Your task to perform on an android device: Go to network settings Image 0: 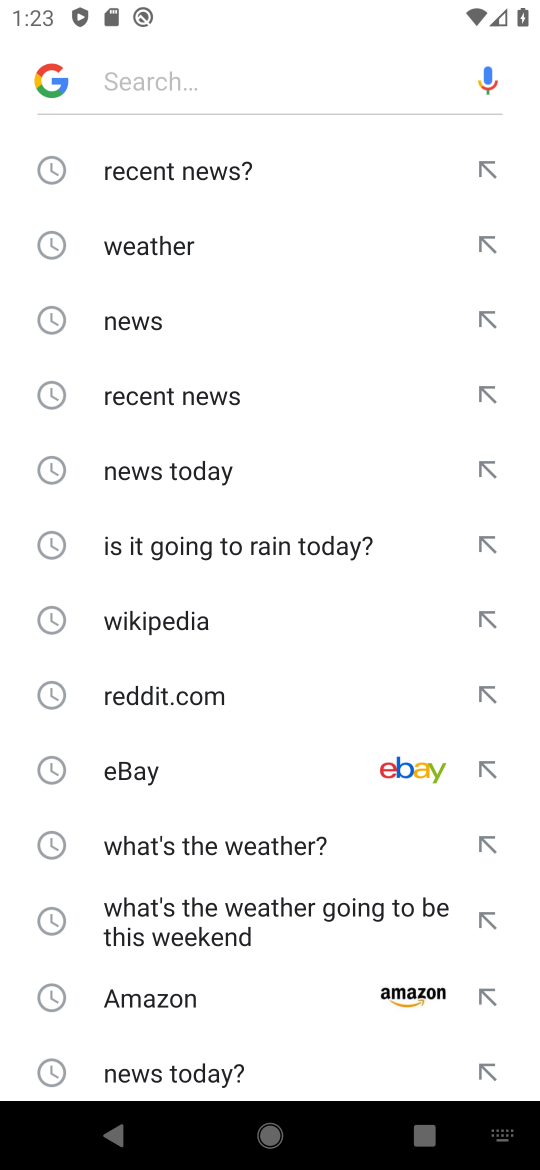
Step 0: drag from (298, 892) to (363, 494)
Your task to perform on an android device: Go to network settings Image 1: 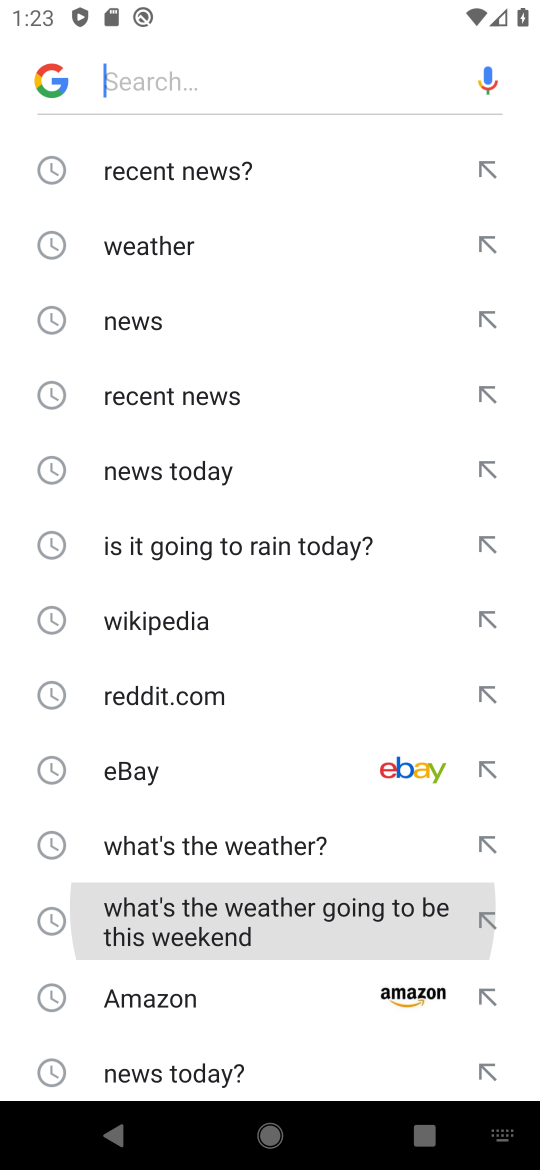
Step 1: drag from (407, 425) to (317, 1131)
Your task to perform on an android device: Go to network settings Image 2: 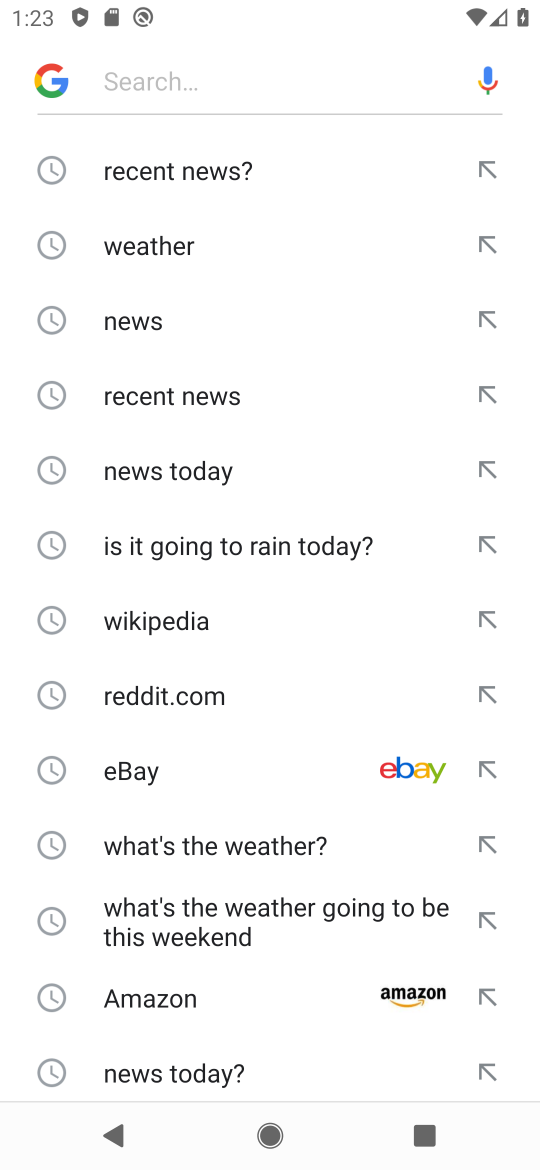
Step 2: press home button
Your task to perform on an android device: Go to network settings Image 3: 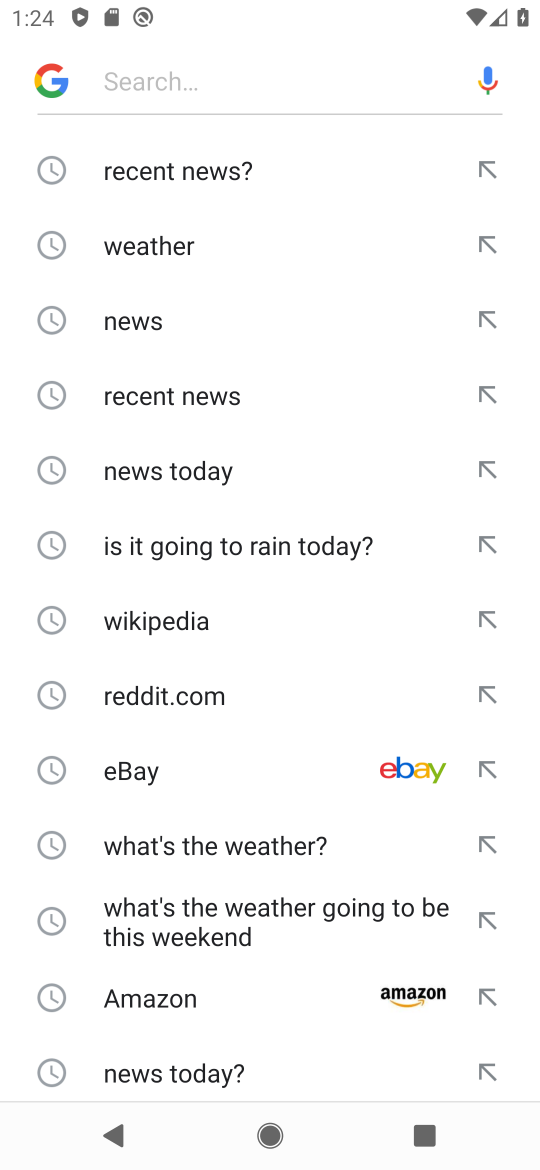
Step 3: drag from (317, 1131) to (509, 648)
Your task to perform on an android device: Go to network settings Image 4: 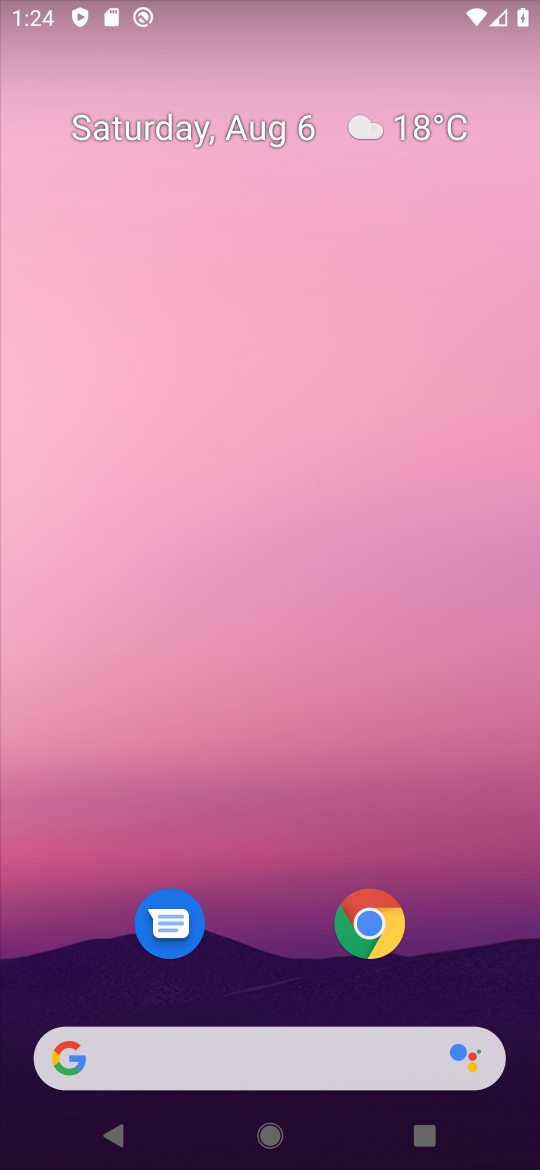
Step 4: click (305, 451)
Your task to perform on an android device: Go to network settings Image 5: 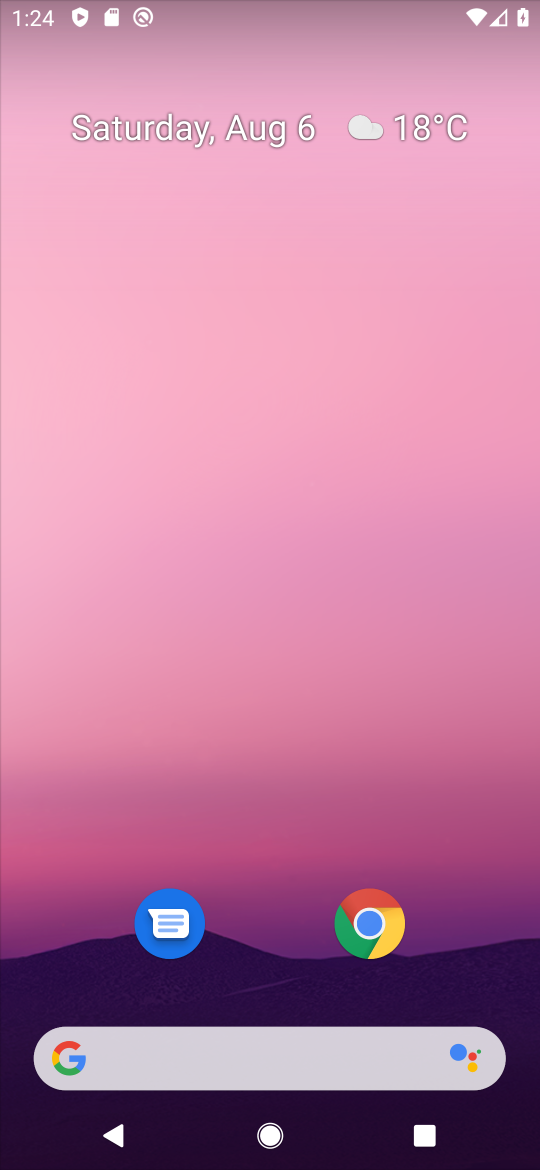
Step 5: drag from (261, 835) to (278, 206)
Your task to perform on an android device: Go to network settings Image 6: 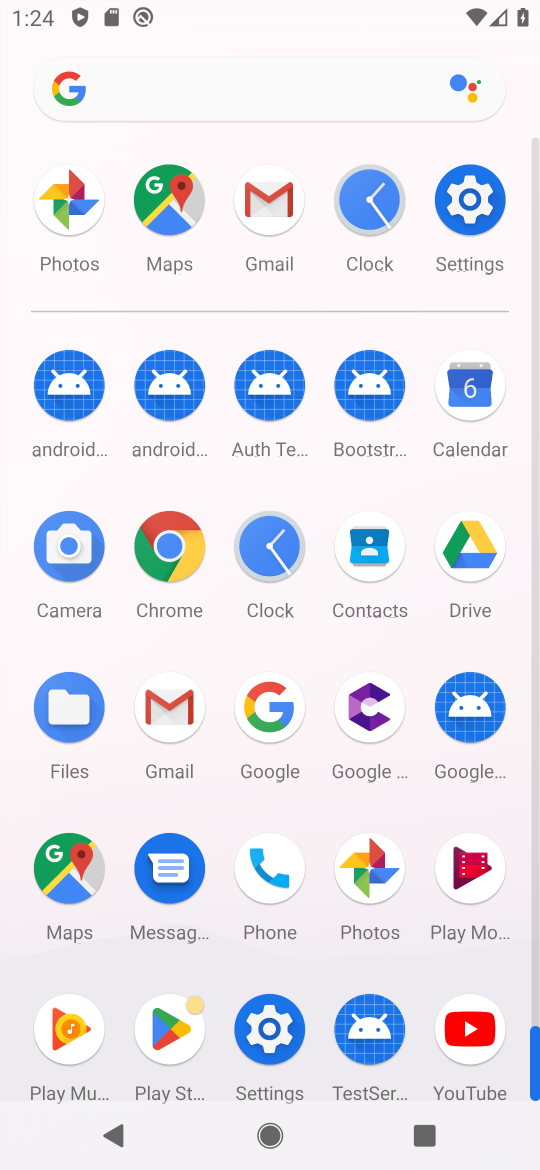
Step 6: click (469, 200)
Your task to perform on an android device: Go to network settings Image 7: 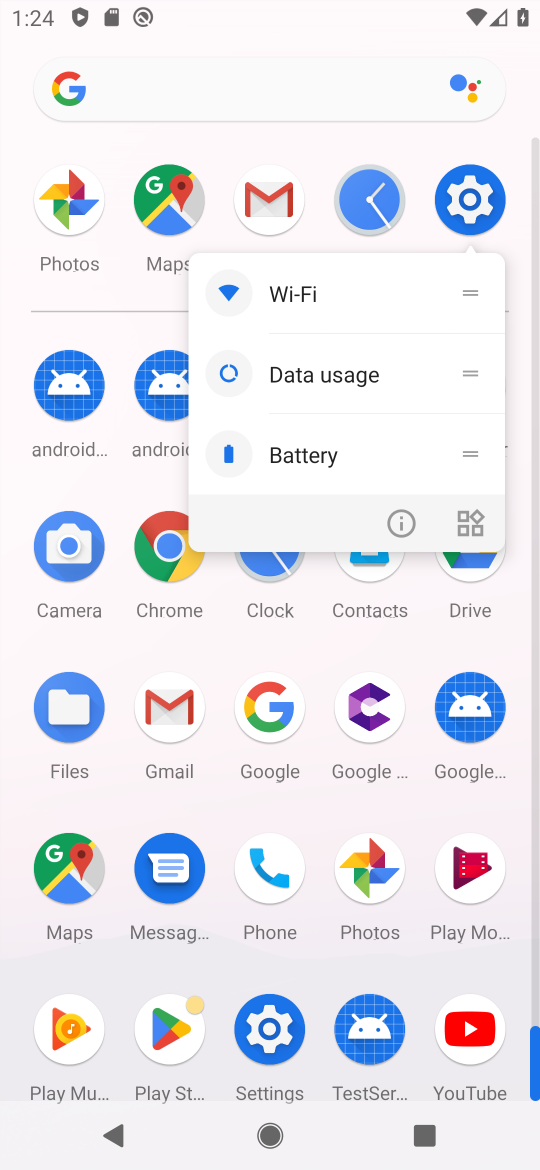
Step 7: click (410, 534)
Your task to perform on an android device: Go to network settings Image 8: 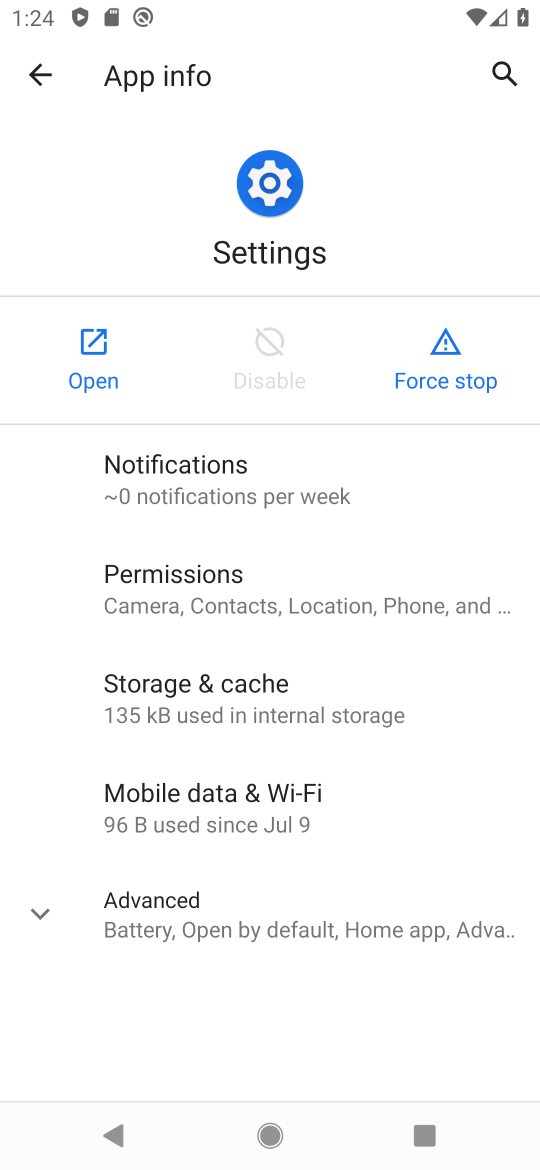
Step 8: click (94, 355)
Your task to perform on an android device: Go to network settings Image 9: 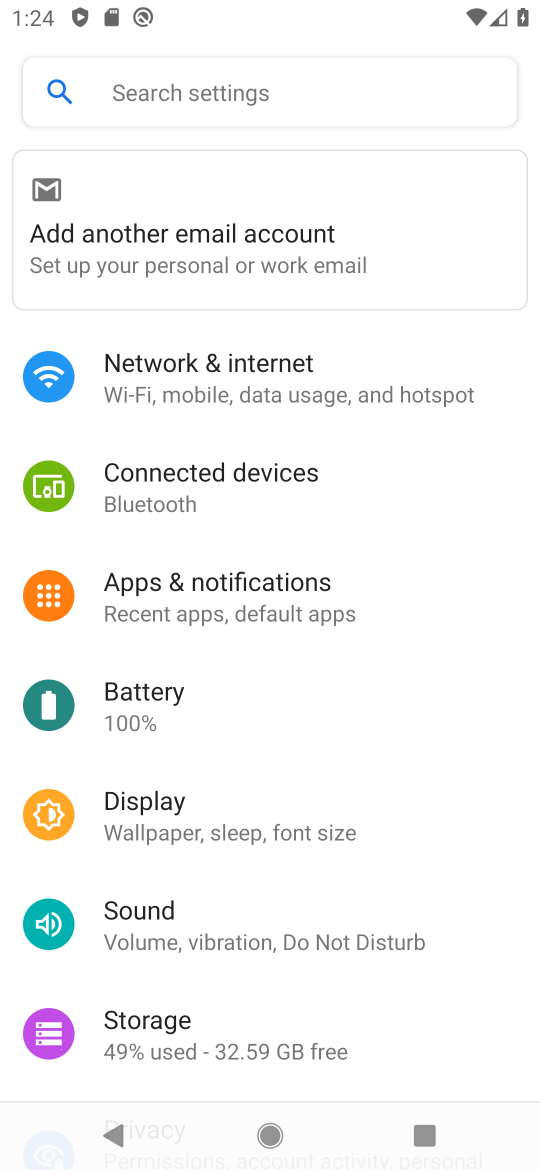
Step 9: click (215, 364)
Your task to perform on an android device: Go to network settings Image 10: 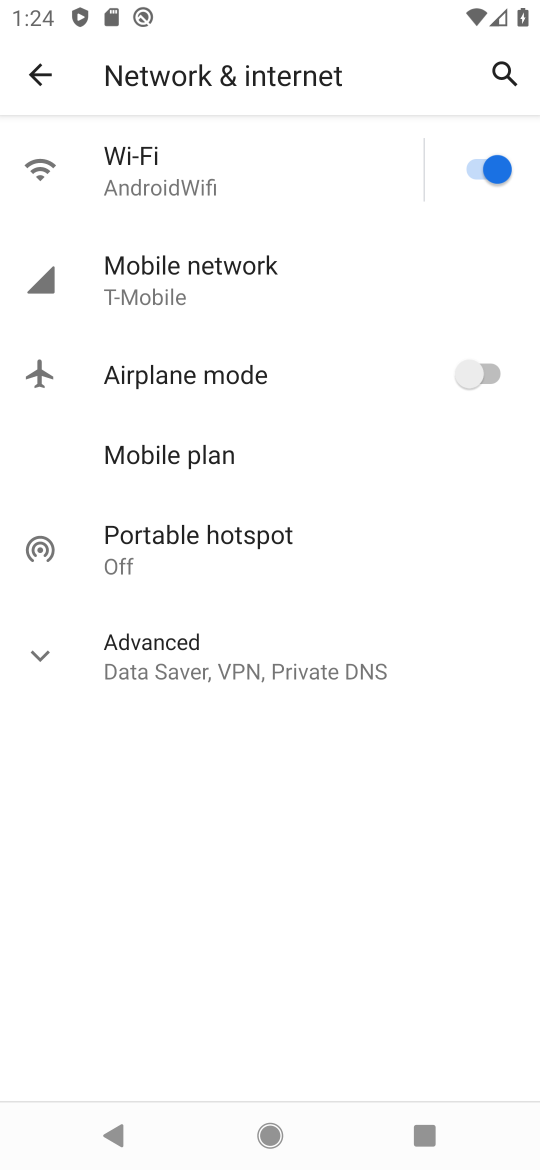
Step 10: click (230, 275)
Your task to perform on an android device: Go to network settings Image 11: 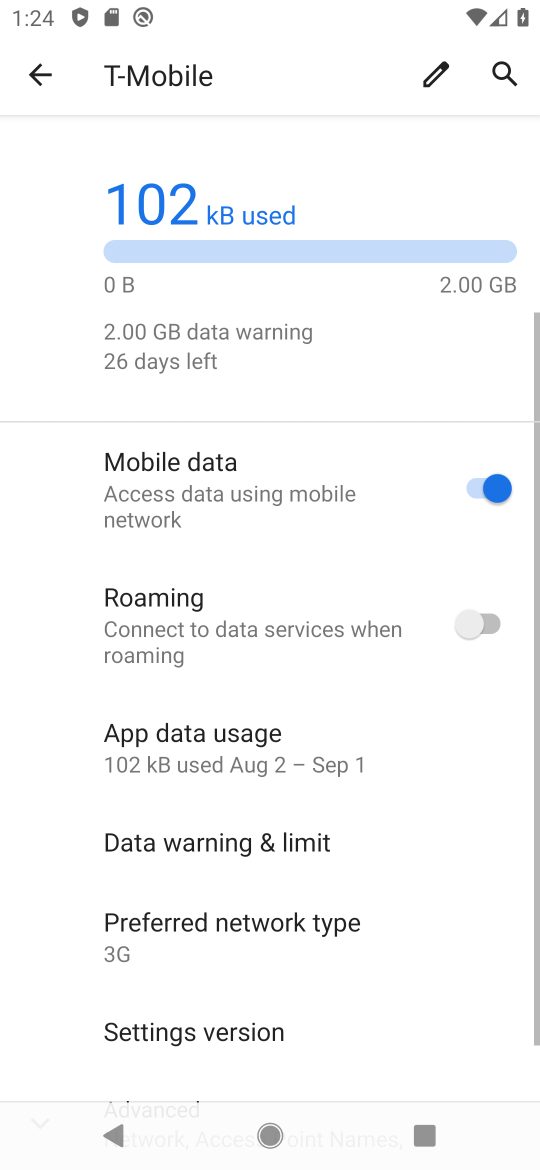
Step 11: task complete